Your task to perform on an android device: choose inbox layout in the gmail app Image 0: 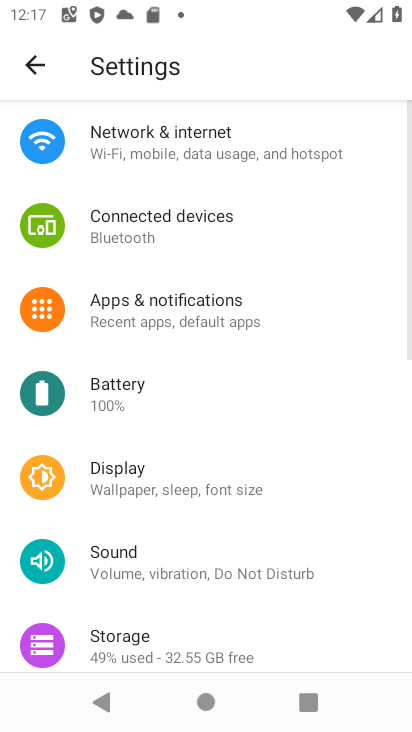
Step 0: press home button
Your task to perform on an android device: choose inbox layout in the gmail app Image 1: 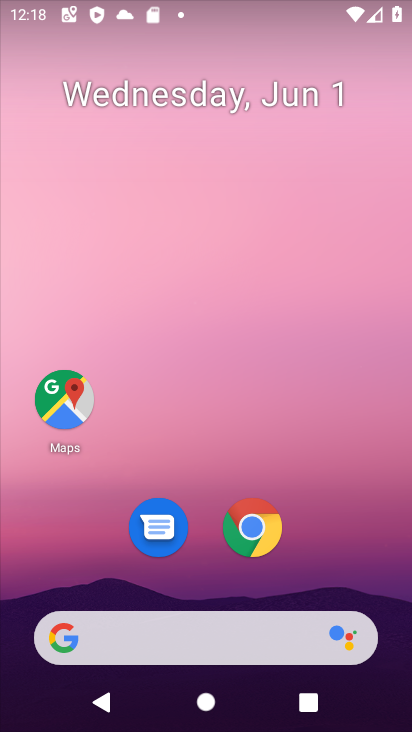
Step 1: drag from (234, 697) to (285, 9)
Your task to perform on an android device: choose inbox layout in the gmail app Image 2: 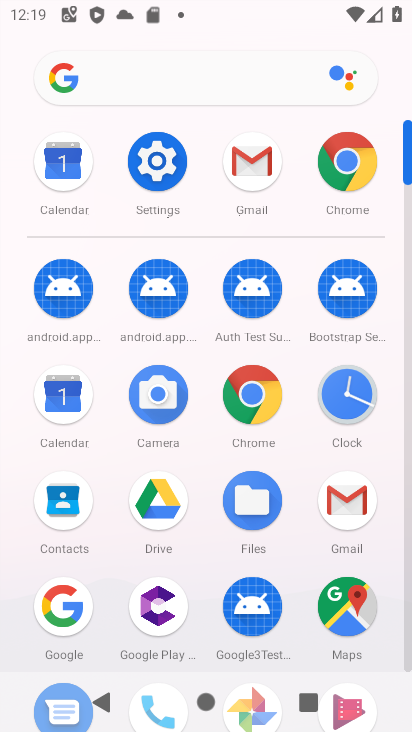
Step 2: click (246, 176)
Your task to perform on an android device: choose inbox layout in the gmail app Image 3: 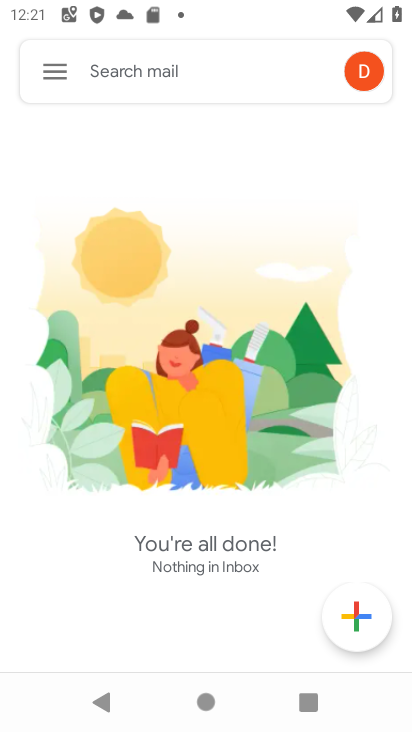
Step 3: click (45, 65)
Your task to perform on an android device: choose inbox layout in the gmail app Image 4: 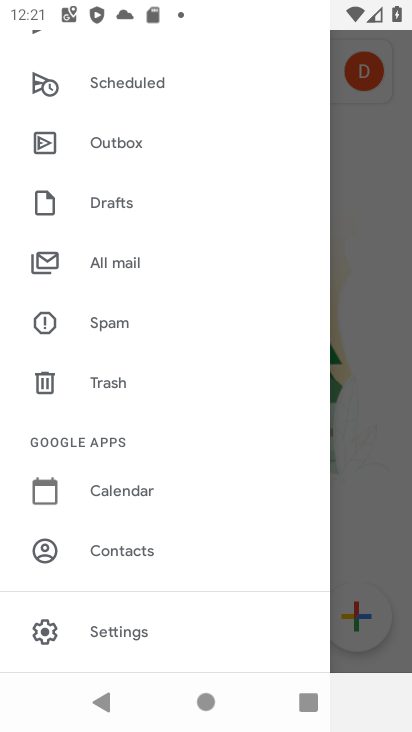
Step 4: drag from (110, 499) to (45, 16)
Your task to perform on an android device: choose inbox layout in the gmail app Image 5: 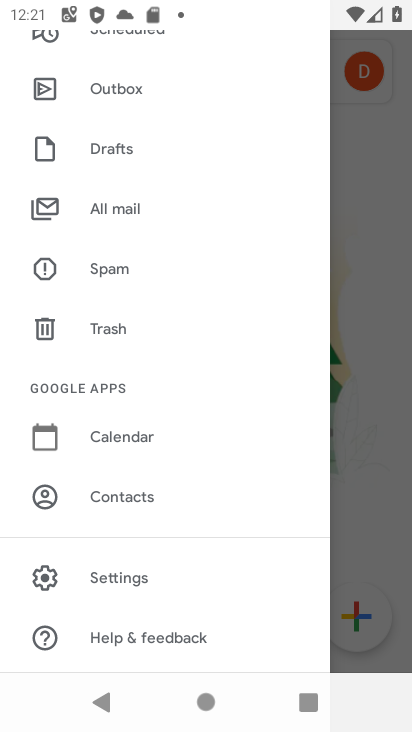
Step 5: click (134, 575)
Your task to perform on an android device: choose inbox layout in the gmail app Image 6: 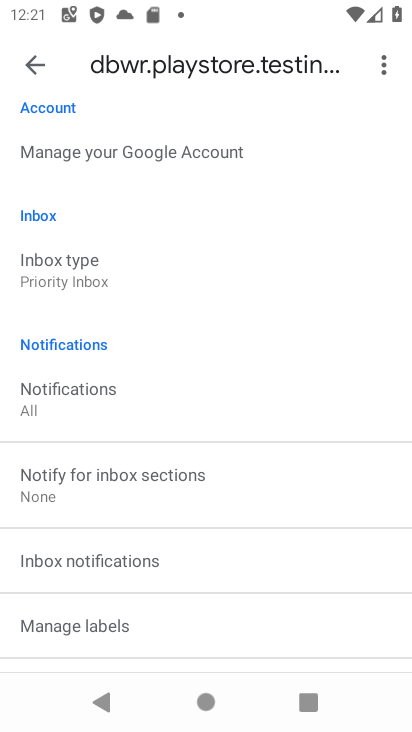
Step 6: click (86, 266)
Your task to perform on an android device: choose inbox layout in the gmail app Image 7: 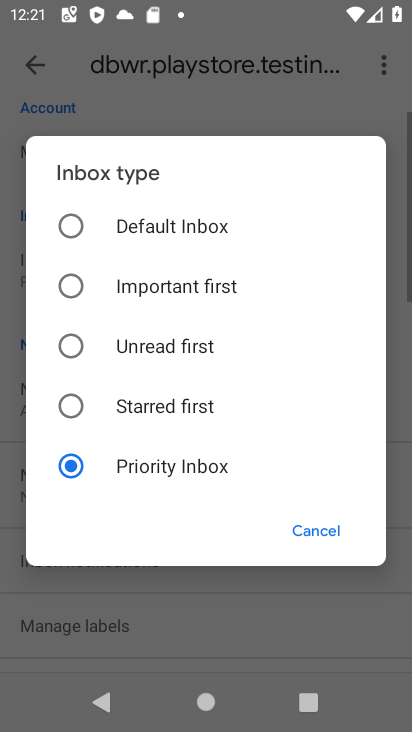
Step 7: click (151, 225)
Your task to perform on an android device: choose inbox layout in the gmail app Image 8: 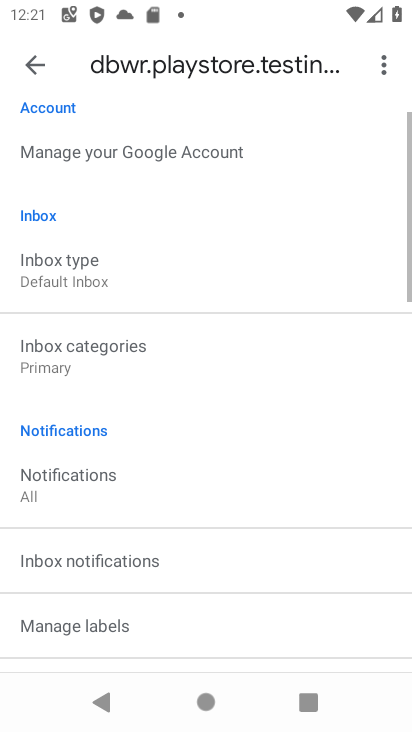
Step 8: task complete